Your task to perform on an android device: turn off location Image 0: 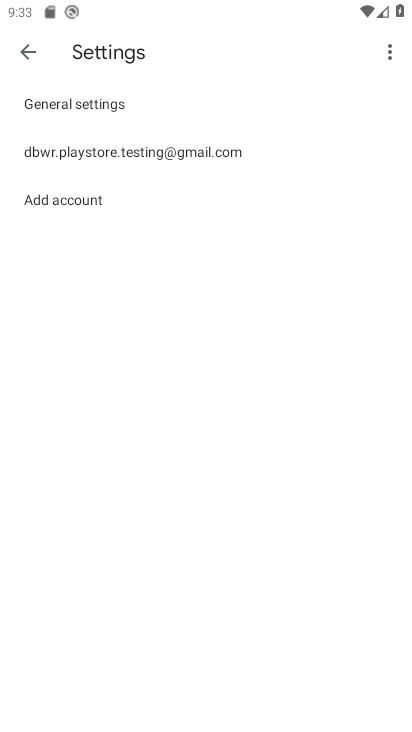
Step 0: press home button
Your task to perform on an android device: turn off location Image 1: 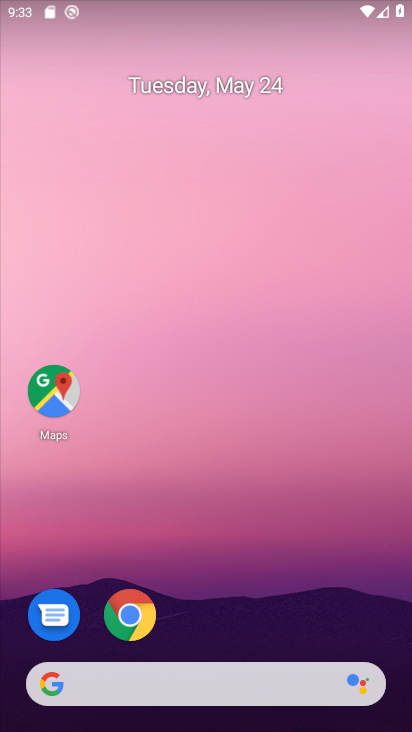
Step 1: drag from (358, 622) to (352, 230)
Your task to perform on an android device: turn off location Image 2: 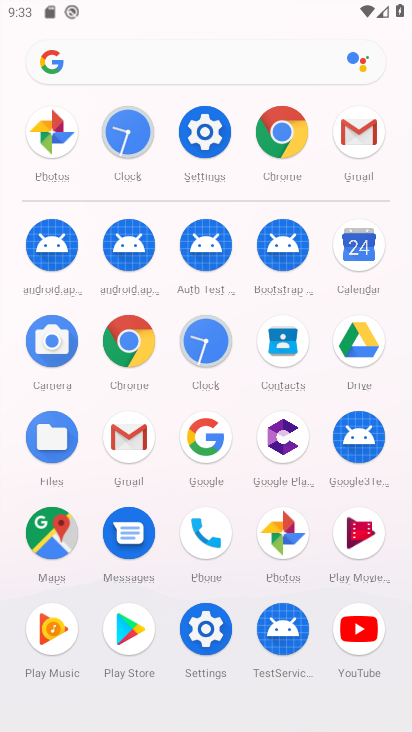
Step 2: click (202, 659)
Your task to perform on an android device: turn off location Image 3: 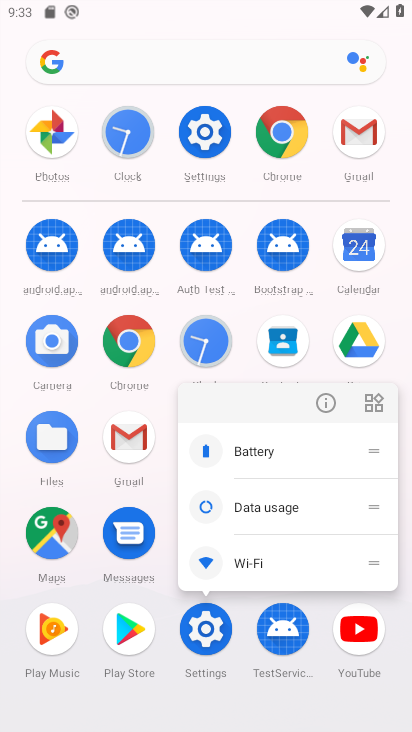
Step 3: click (203, 658)
Your task to perform on an android device: turn off location Image 4: 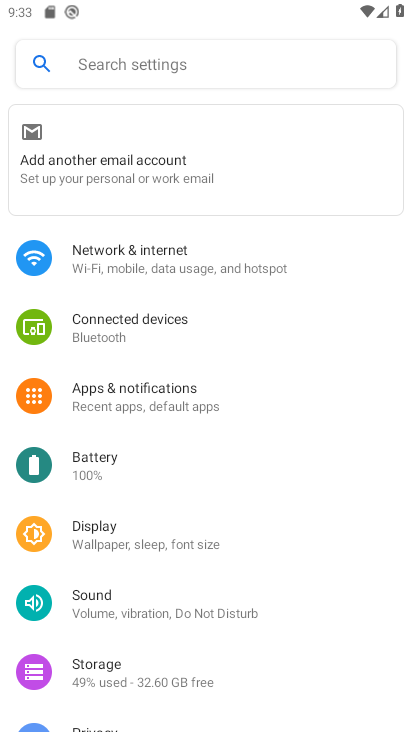
Step 4: drag from (355, 596) to (354, 502)
Your task to perform on an android device: turn off location Image 5: 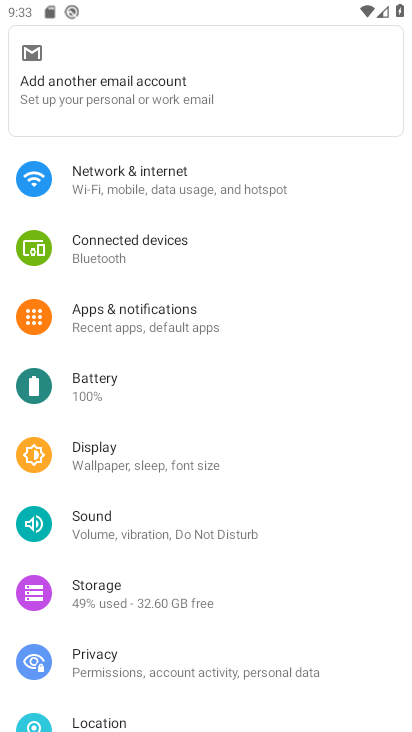
Step 5: drag from (382, 663) to (375, 578)
Your task to perform on an android device: turn off location Image 6: 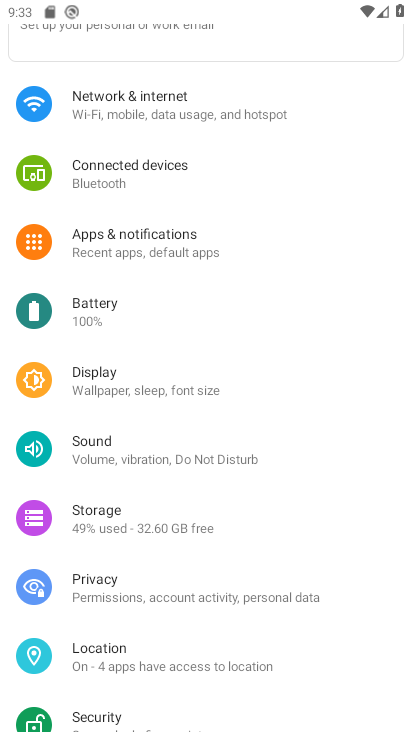
Step 6: drag from (367, 663) to (357, 574)
Your task to perform on an android device: turn off location Image 7: 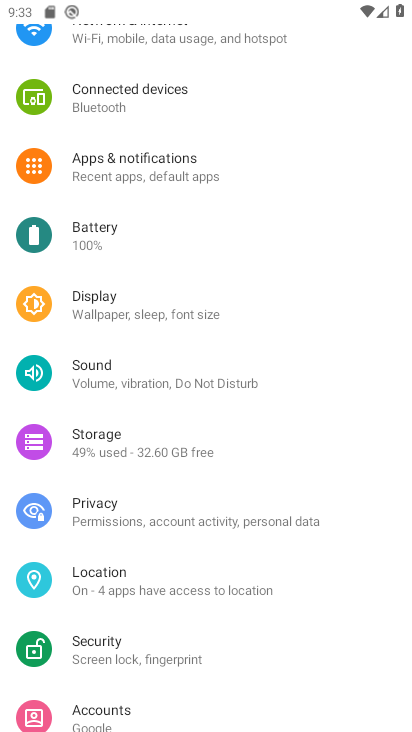
Step 7: drag from (352, 638) to (355, 513)
Your task to perform on an android device: turn off location Image 8: 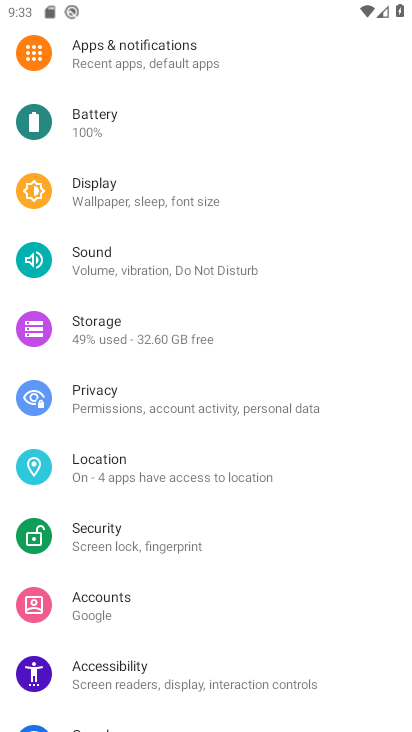
Step 8: drag from (353, 656) to (344, 506)
Your task to perform on an android device: turn off location Image 9: 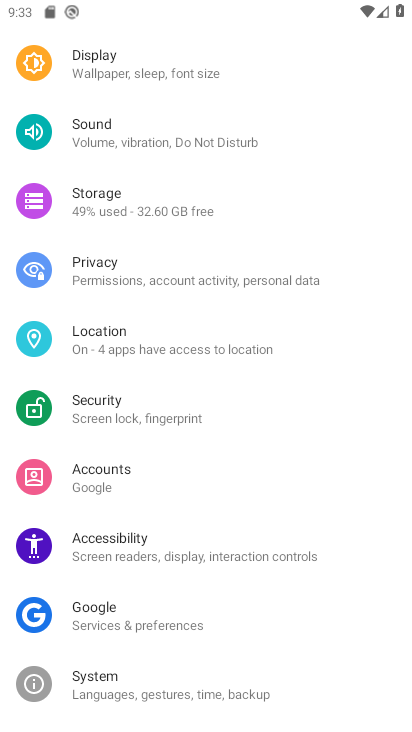
Step 9: drag from (343, 602) to (352, 463)
Your task to perform on an android device: turn off location Image 10: 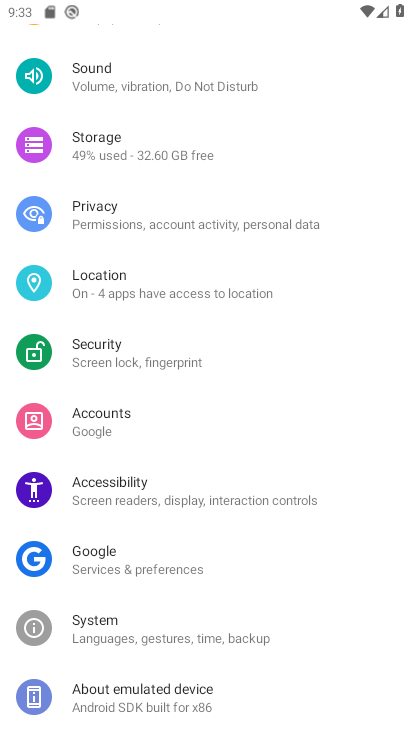
Step 10: click (257, 300)
Your task to perform on an android device: turn off location Image 11: 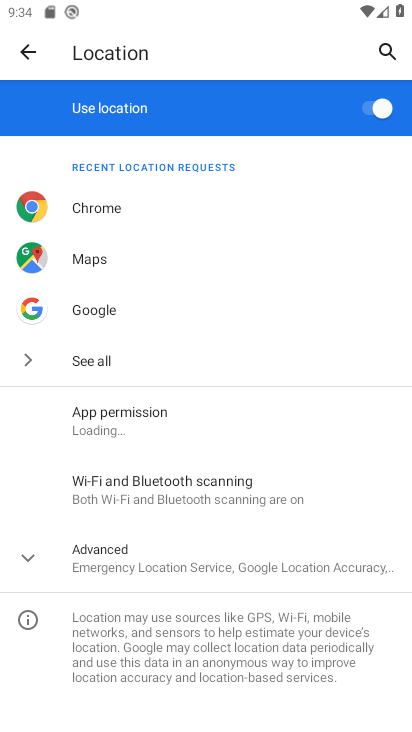
Step 11: click (367, 113)
Your task to perform on an android device: turn off location Image 12: 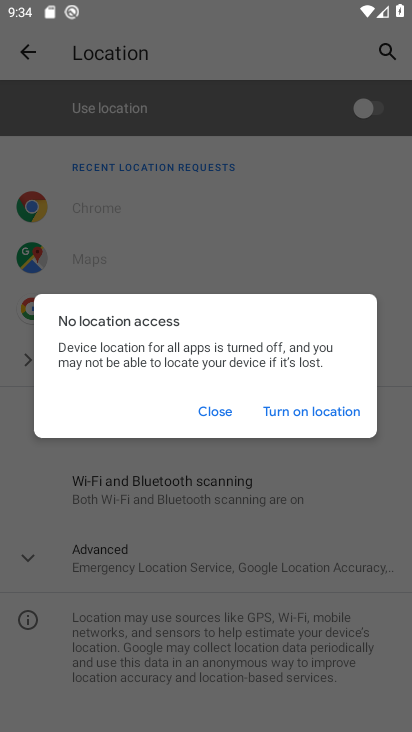
Step 12: task complete